Your task to perform on an android device: Go to Yahoo.com Image 0: 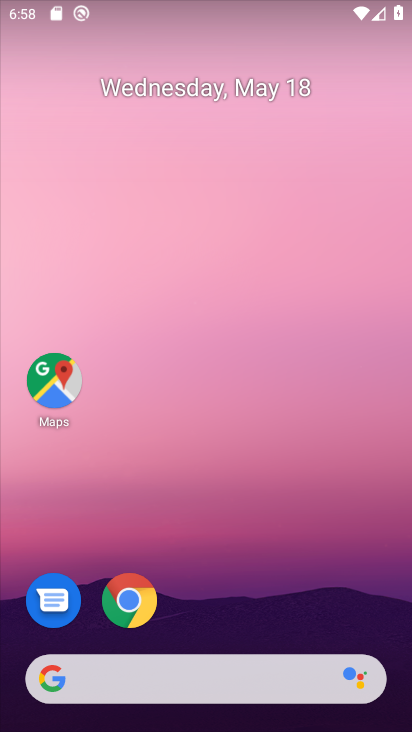
Step 0: drag from (249, 699) to (174, 267)
Your task to perform on an android device: Go to Yahoo.com Image 1: 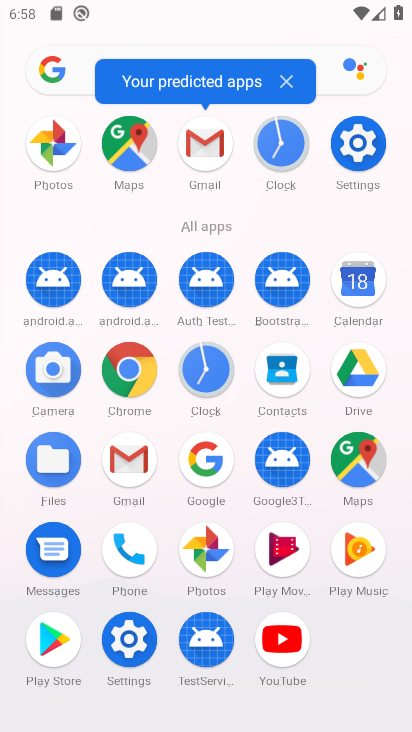
Step 1: click (141, 370)
Your task to perform on an android device: Go to Yahoo.com Image 2: 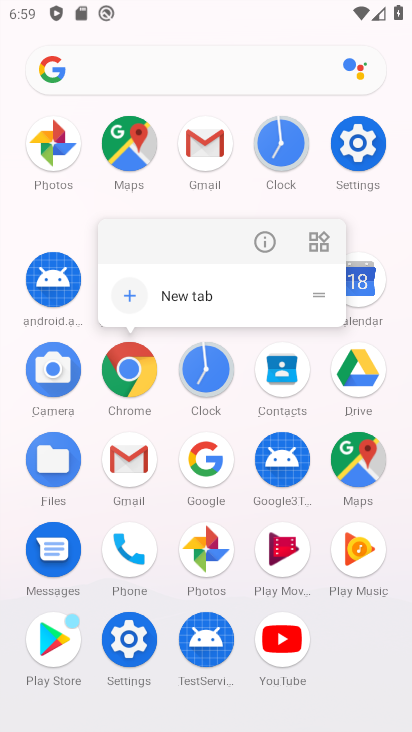
Step 2: click (126, 378)
Your task to perform on an android device: Go to Yahoo.com Image 3: 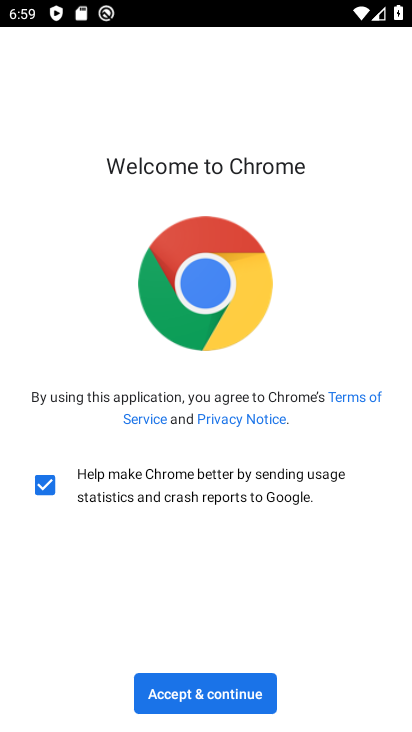
Step 3: click (237, 691)
Your task to perform on an android device: Go to Yahoo.com Image 4: 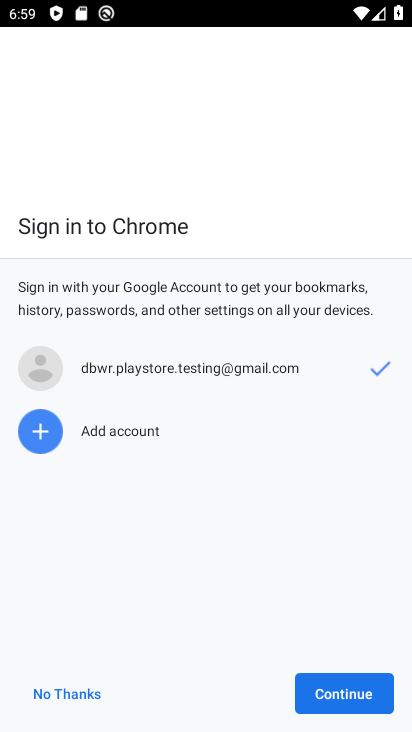
Step 4: click (361, 696)
Your task to perform on an android device: Go to Yahoo.com Image 5: 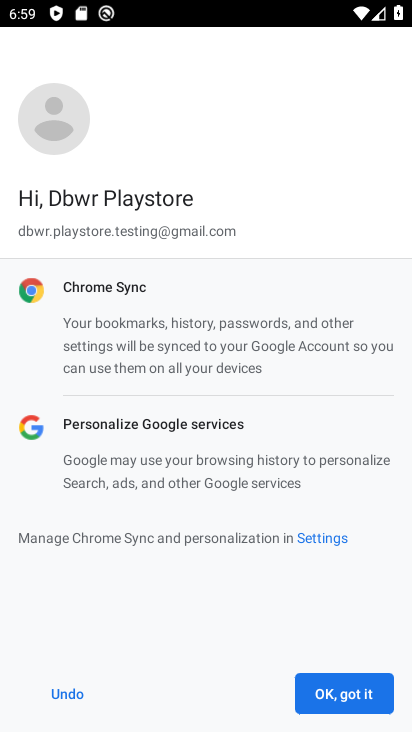
Step 5: click (366, 686)
Your task to perform on an android device: Go to Yahoo.com Image 6: 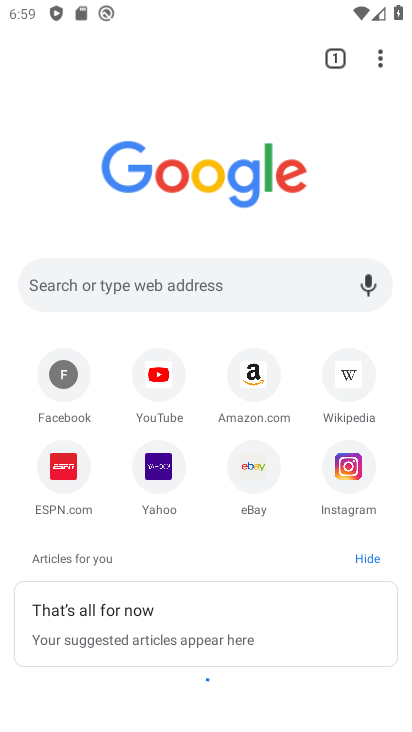
Step 6: click (160, 473)
Your task to perform on an android device: Go to Yahoo.com Image 7: 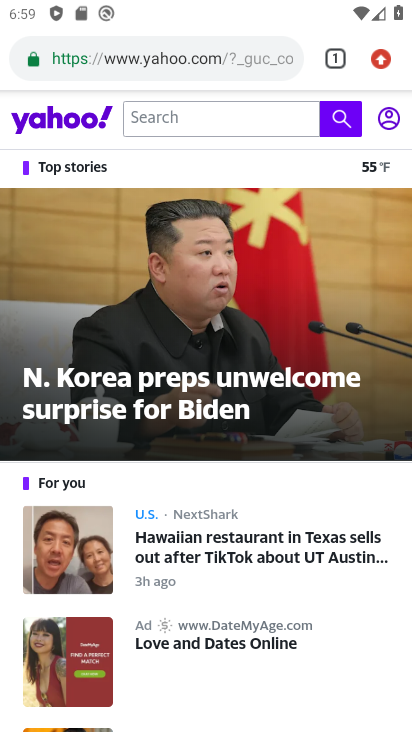
Step 7: task complete